Your task to perform on an android device: Open calendar and show me the third week of next month Image 0: 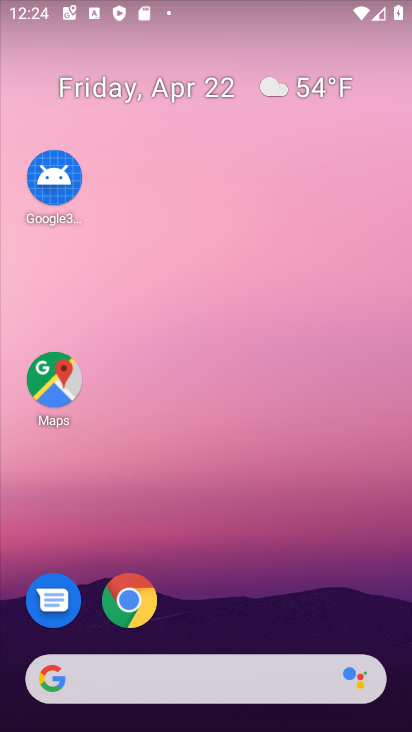
Step 0: drag from (214, 574) to (177, 152)
Your task to perform on an android device: Open calendar and show me the third week of next month Image 1: 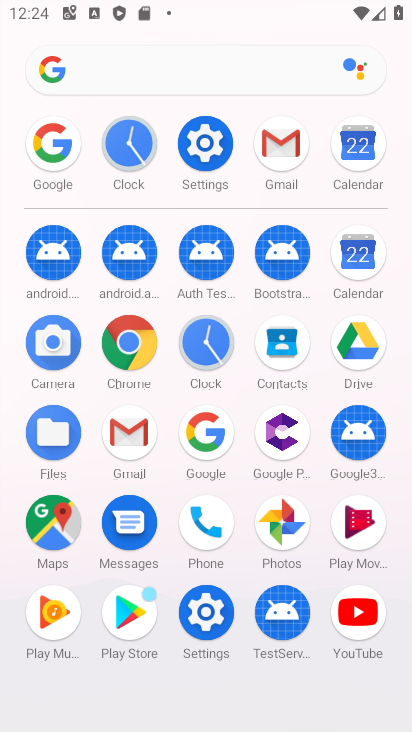
Step 1: click (353, 255)
Your task to perform on an android device: Open calendar and show me the third week of next month Image 2: 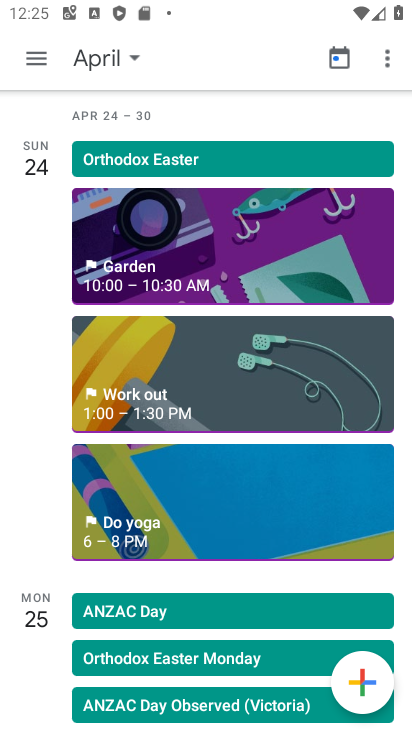
Step 2: click (41, 59)
Your task to perform on an android device: Open calendar and show me the third week of next month Image 3: 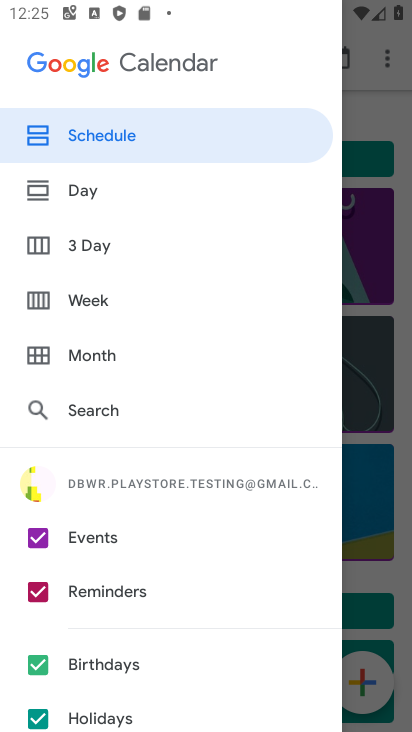
Step 3: click (71, 282)
Your task to perform on an android device: Open calendar and show me the third week of next month Image 4: 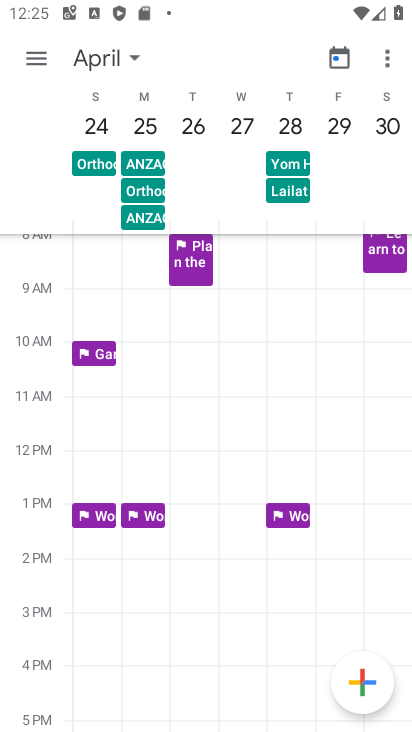
Step 4: click (127, 56)
Your task to perform on an android device: Open calendar and show me the third week of next month Image 5: 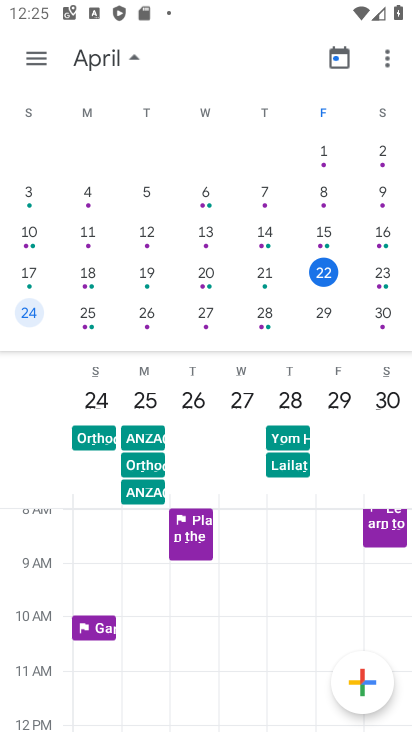
Step 5: drag from (348, 214) to (0, 287)
Your task to perform on an android device: Open calendar and show me the third week of next month Image 6: 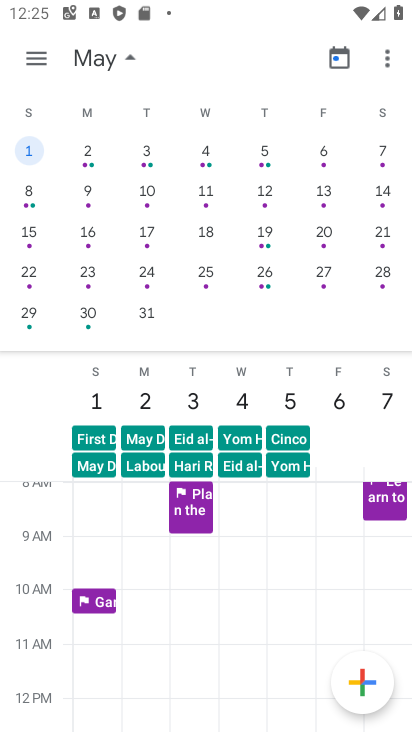
Step 6: click (29, 229)
Your task to perform on an android device: Open calendar and show me the third week of next month Image 7: 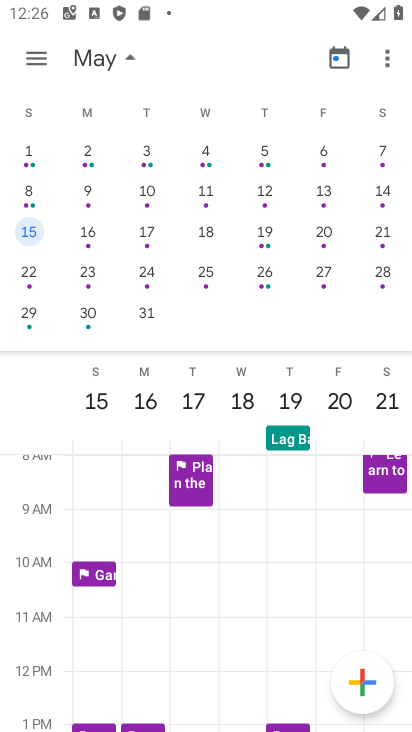
Step 7: task complete